Your task to perform on an android device: change notification settings in the gmail app Image 0: 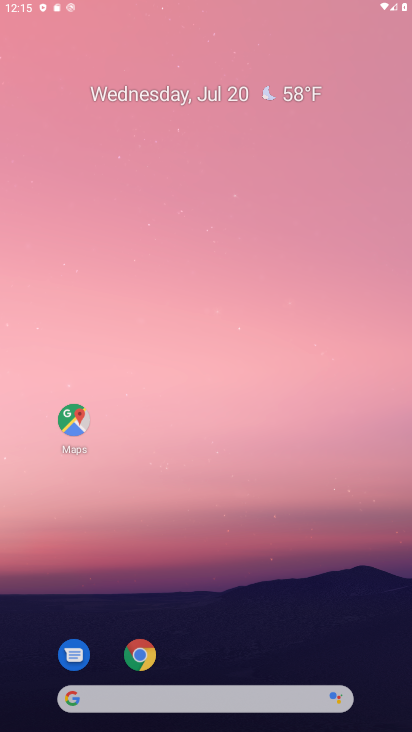
Step 0: press home button
Your task to perform on an android device: change notification settings in the gmail app Image 1: 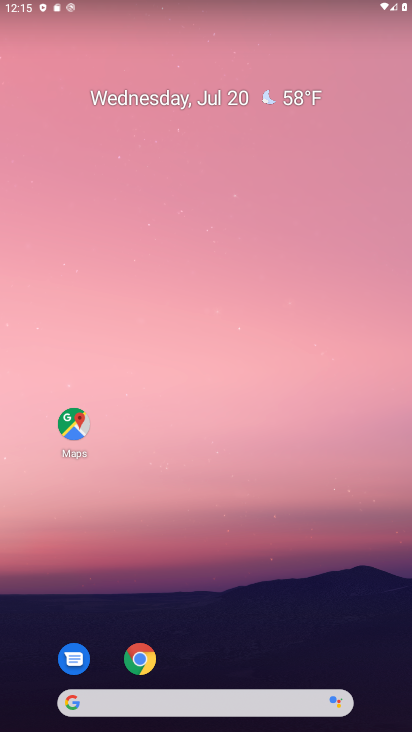
Step 1: drag from (226, 666) to (259, 2)
Your task to perform on an android device: change notification settings in the gmail app Image 2: 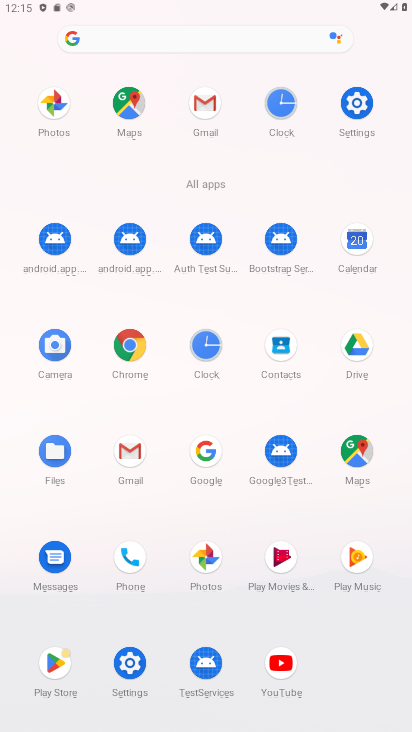
Step 2: click (204, 101)
Your task to perform on an android device: change notification settings in the gmail app Image 3: 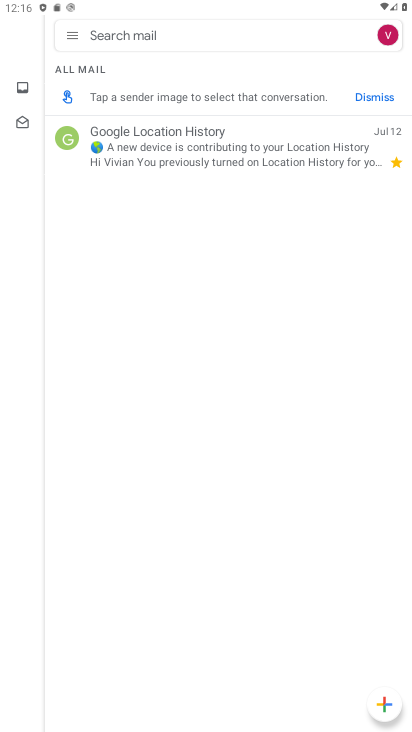
Step 3: click (69, 30)
Your task to perform on an android device: change notification settings in the gmail app Image 4: 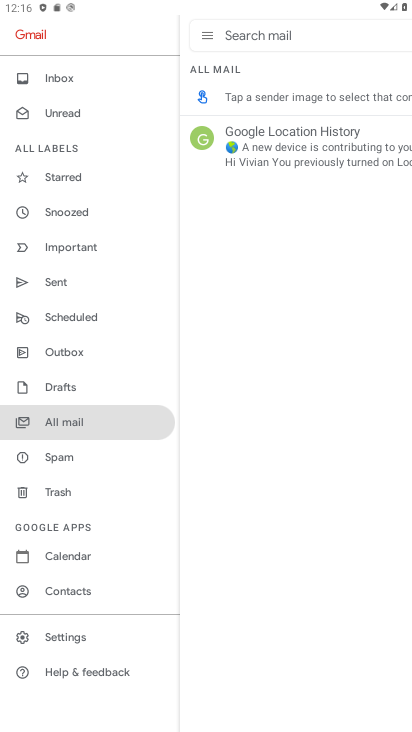
Step 4: click (64, 636)
Your task to perform on an android device: change notification settings in the gmail app Image 5: 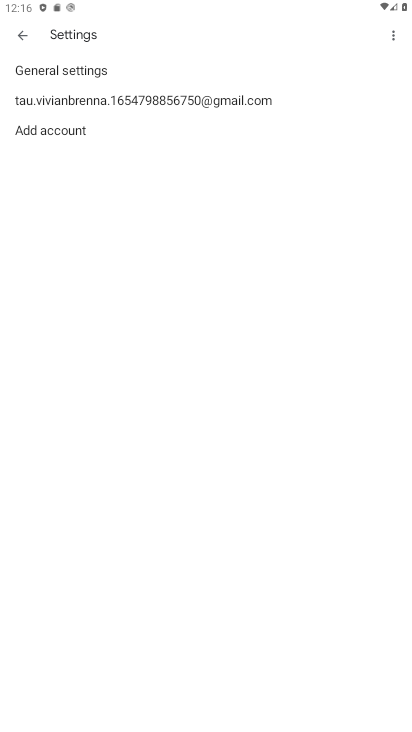
Step 5: click (112, 63)
Your task to perform on an android device: change notification settings in the gmail app Image 6: 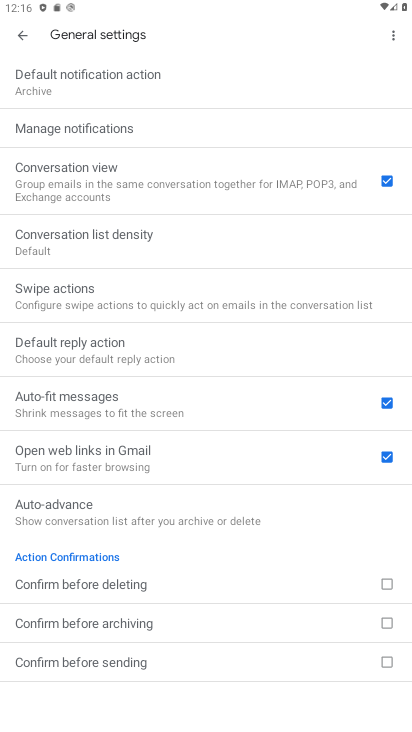
Step 6: click (148, 122)
Your task to perform on an android device: change notification settings in the gmail app Image 7: 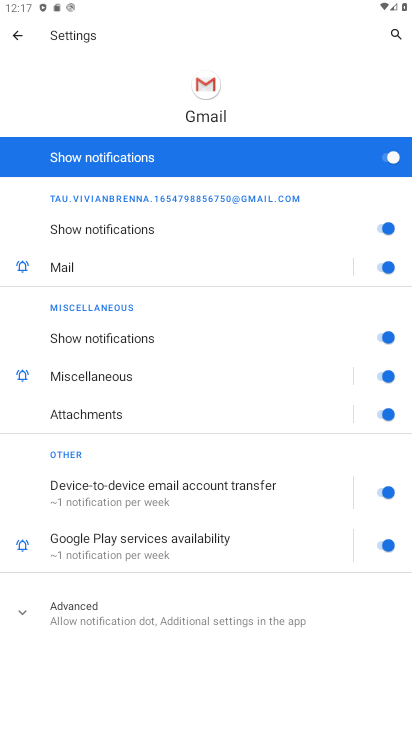
Step 7: click (386, 153)
Your task to perform on an android device: change notification settings in the gmail app Image 8: 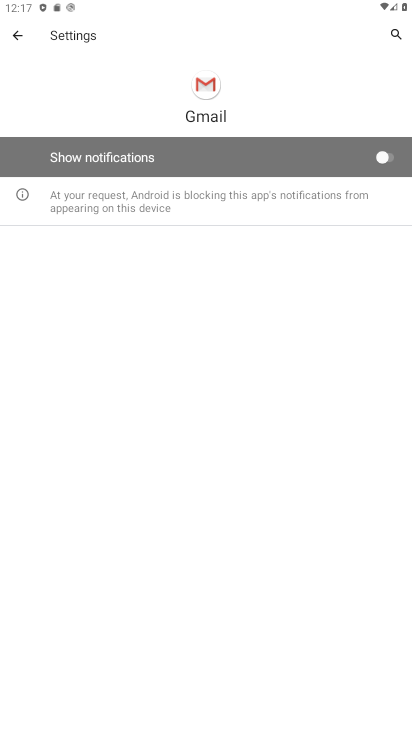
Step 8: task complete